Your task to perform on an android device: Is it going to rain today? Image 0: 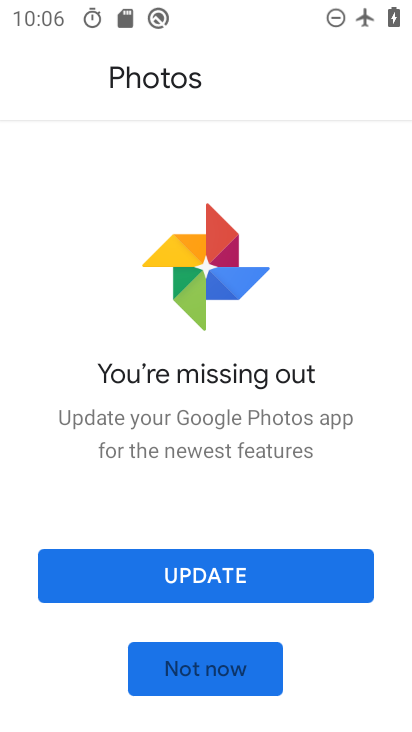
Step 0: press home button
Your task to perform on an android device: Is it going to rain today? Image 1: 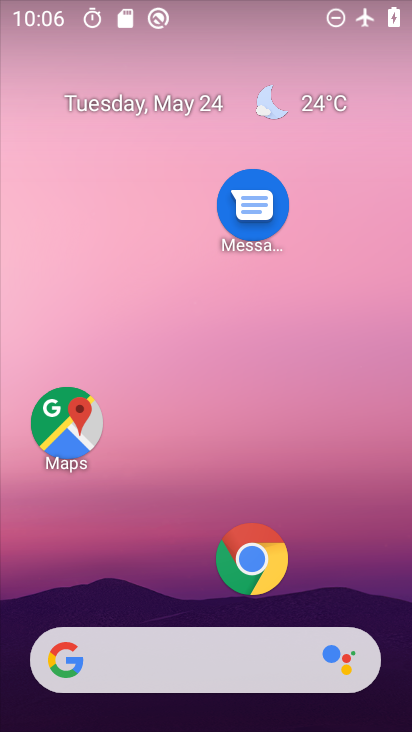
Step 1: drag from (195, 589) to (213, 190)
Your task to perform on an android device: Is it going to rain today? Image 2: 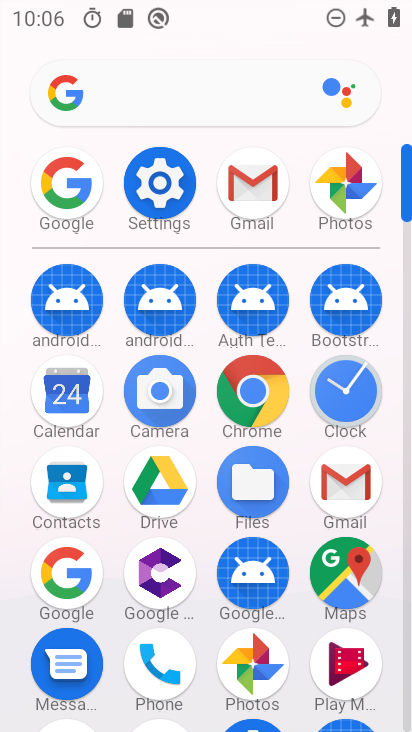
Step 2: click (75, 194)
Your task to perform on an android device: Is it going to rain today? Image 3: 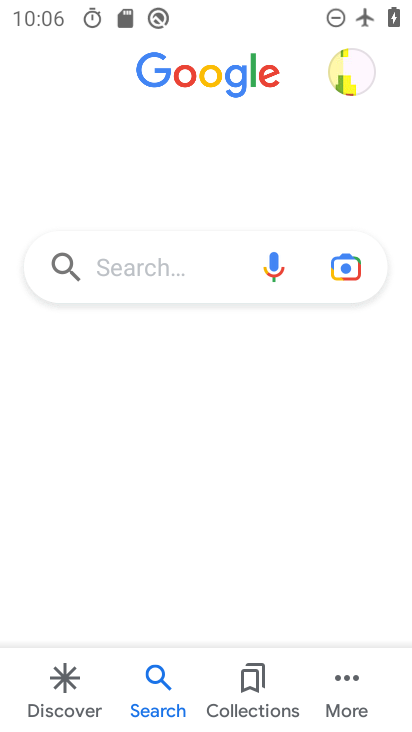
Step 3: click (136, 261)
Your task to perform on an android device: Is it going to rain today? Image 4: 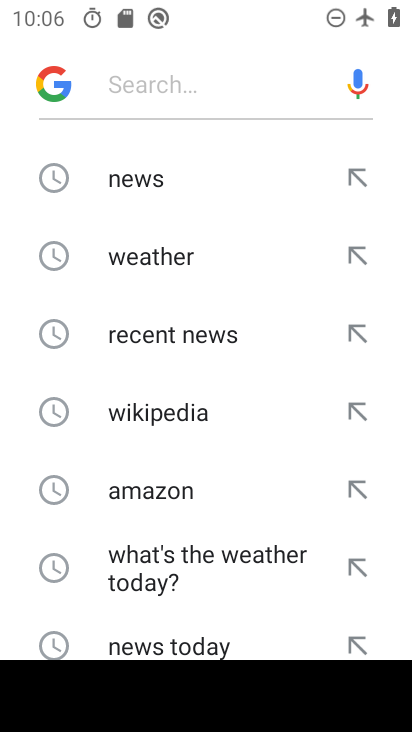
Step 4: click (154, 249)
Your task to perform on an android device: Is it going to rain today? Image 5: 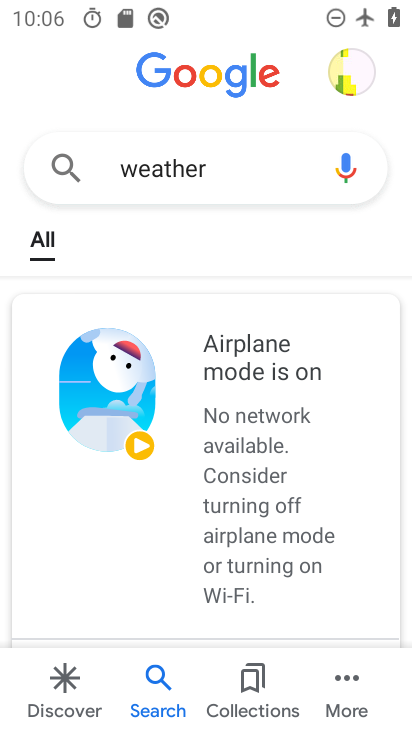
Step 5: task complete